Your task to perform on an android device: toggle javascript in the chrome app Image 0: 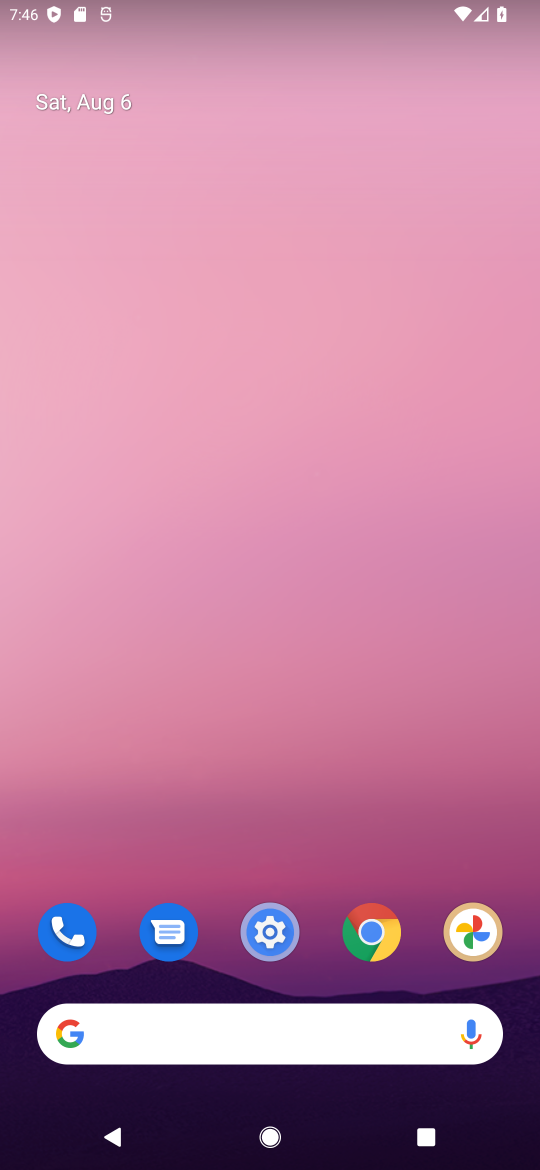
Step 0: press home button
Your task to perform on an android device: toggle javascript in the chrome app Image 1: 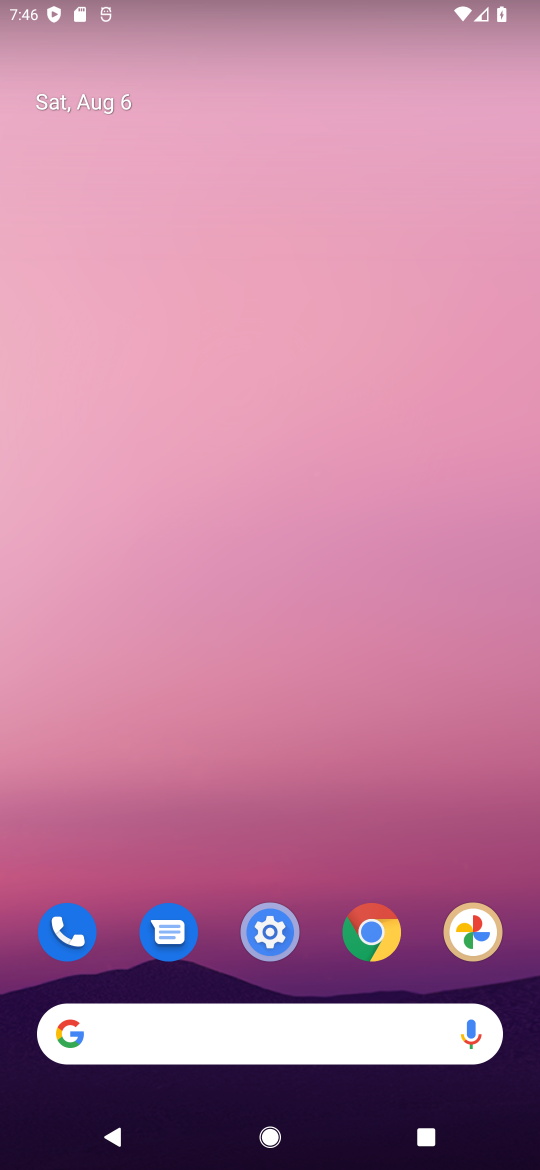
Step 1: click (369, 923)
Your task to perform on an android device: toggle javascript in the chrome app Image 2: 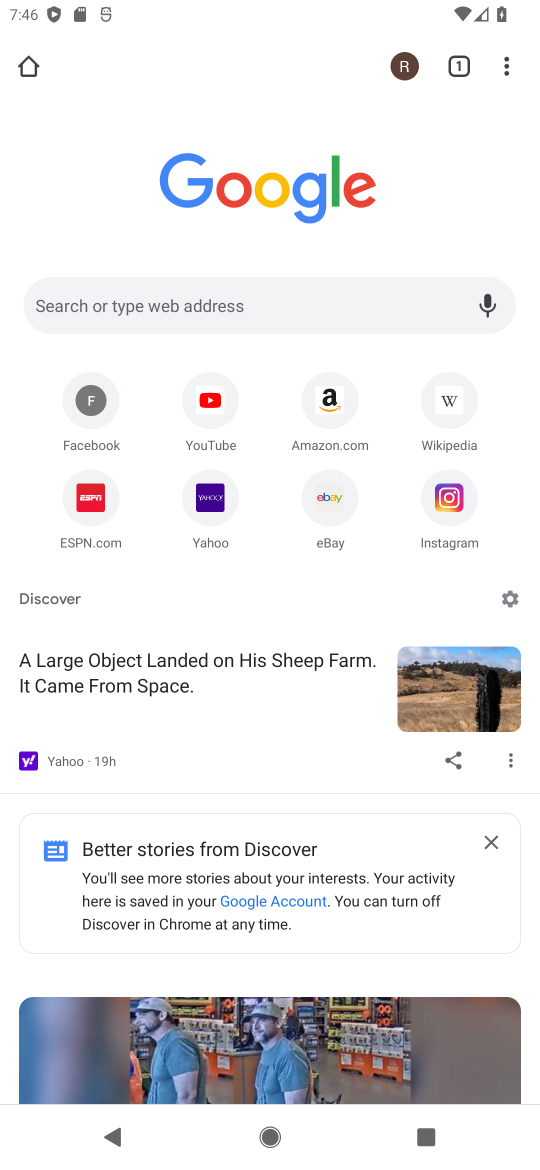
Step 2: drag from (505, 59) to (411, 563)
Your task to perform on an android device: toggle javascript in the chrome app Image 3: 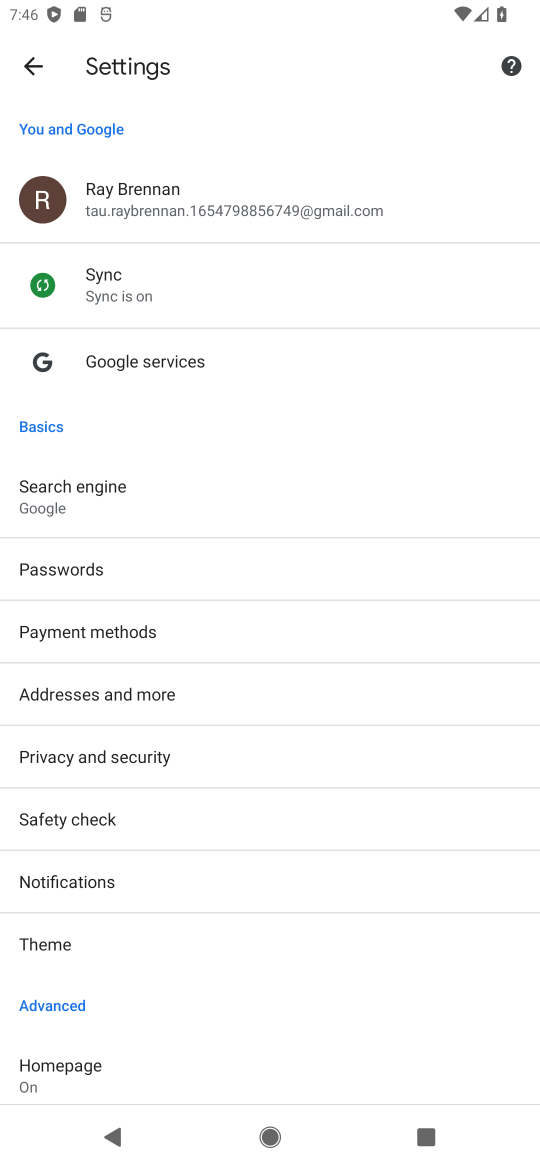
Step 3: drag from (180, 944) to (355, 456)
Your task to perform on an android device: toggle javascript in the chrome app Image 4: 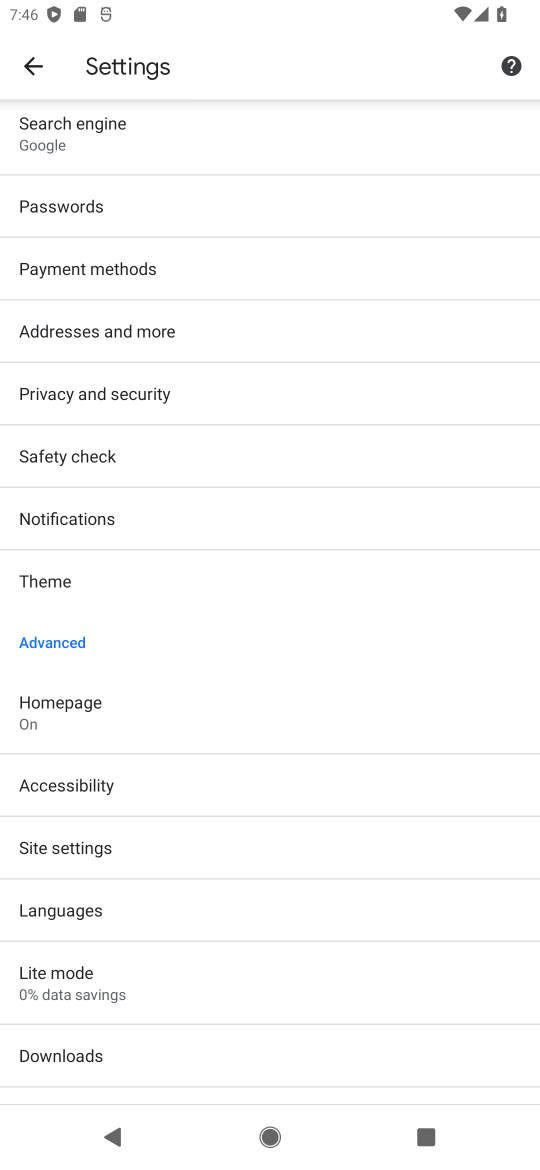
Step 4: click (71, 852)
Your task to perform on an android device: toggle javascript in the chrome app Image 5: 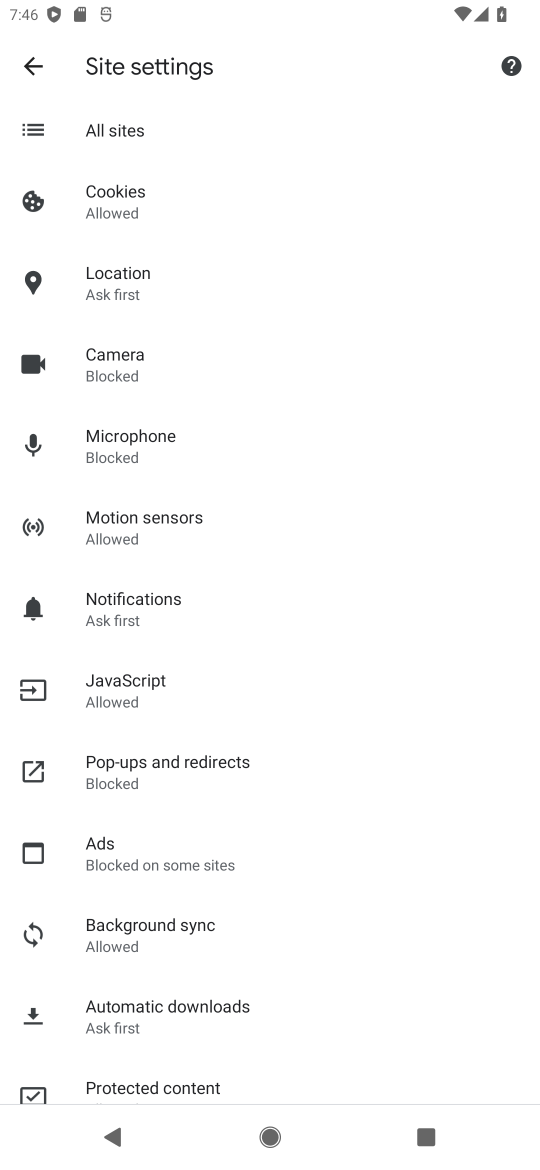
Step 5: click (123, 690)
Your task to perform on an android device: toggle javascript in the chrome app Image 6: 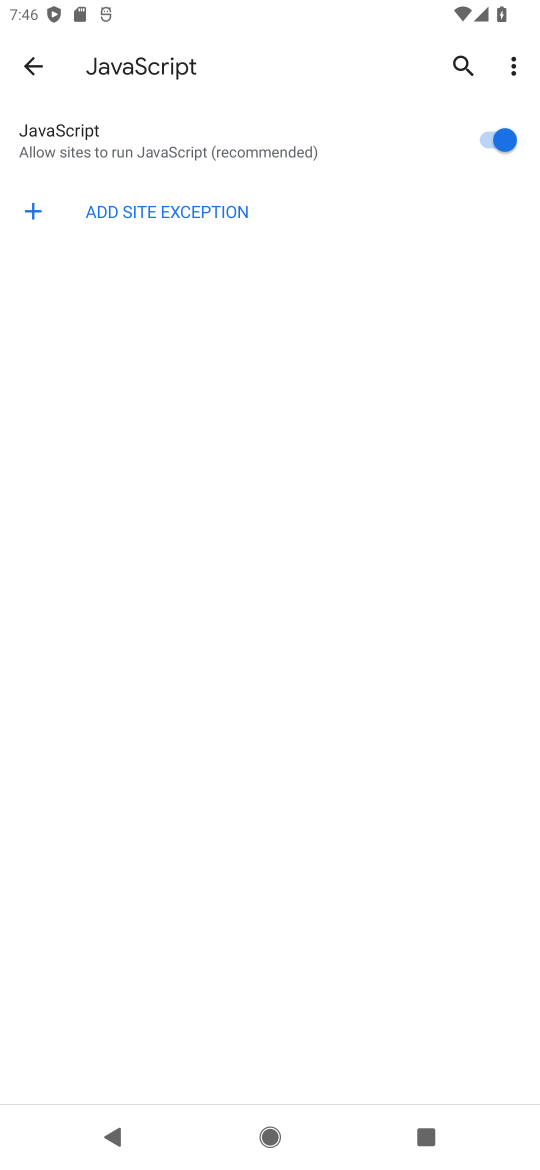
Step 6: click (493, 137)
Your task to perform on an android device: toggle javascript in the chrome app Image 7: 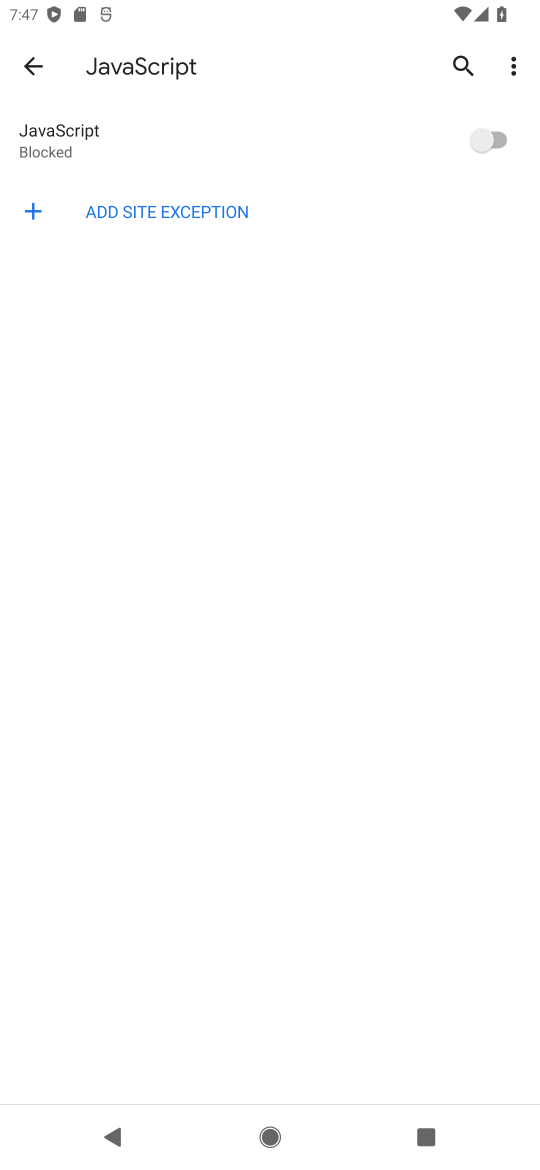
Step 7: task complete